Your task to perform on an android device: set the timer Image 0: 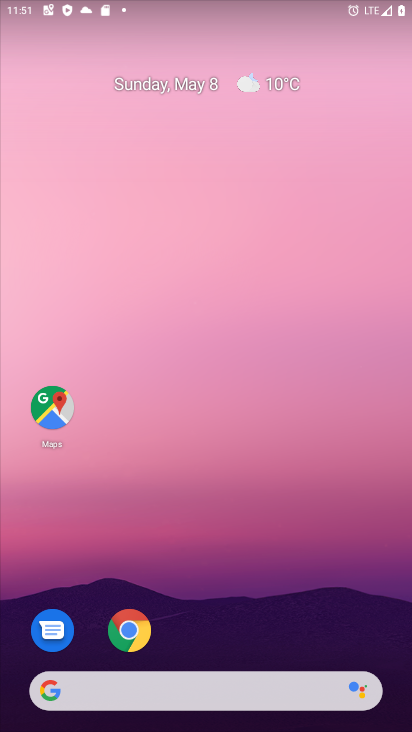
Step 0: drag from (362, 642) to (292, 63)
Your task to perform on an android device: set the timer Image 1: 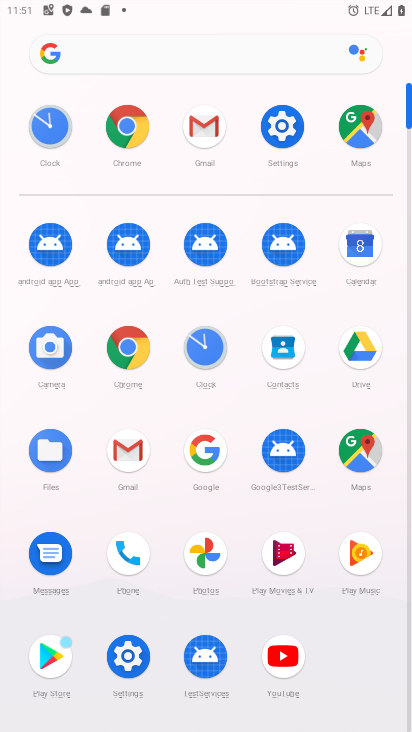
Step 1: click (220, 350)
Your task to perform on an android device: set the timer Image 2: 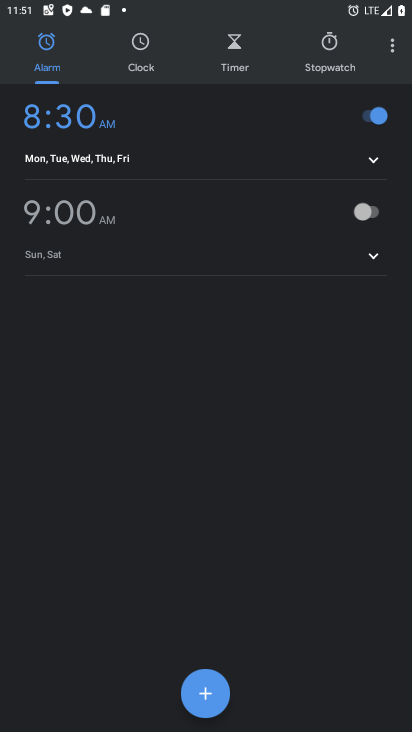
Step 2: click (390, 44)
Your task to perform on an android device: set the timer Image 3: 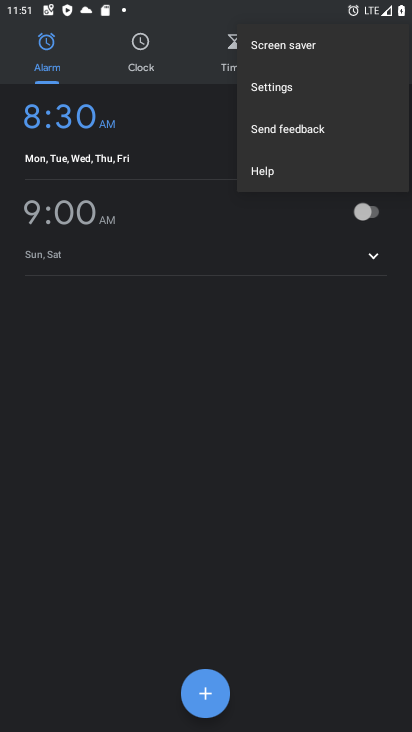
Step 3: click (319, 80)
Your task to perform on an android device: set the timer Image 4: 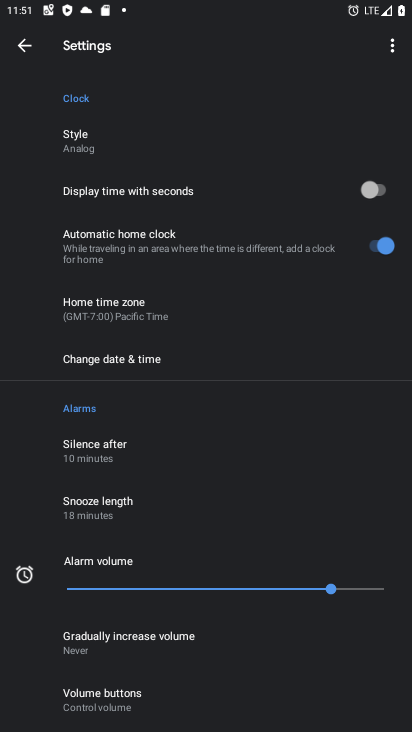
Step 4: drag from (145, 509) to (204, 205)
Your task to perform on an android device: set the timer Image 5: 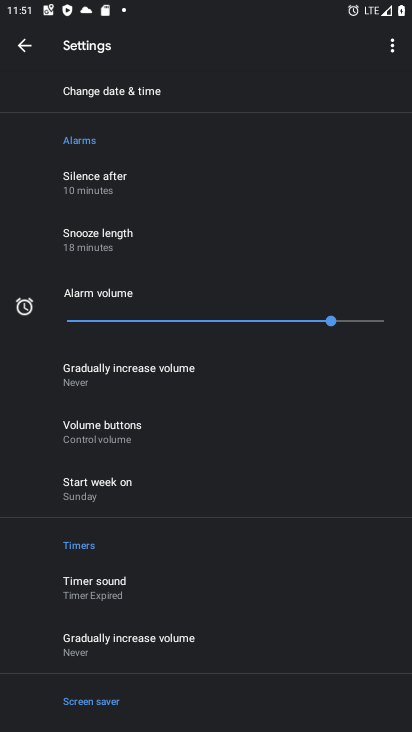
Step 5: drag from (193, 196) to (144, 626)
Your task to perform on an android device: set the timer Image 6: 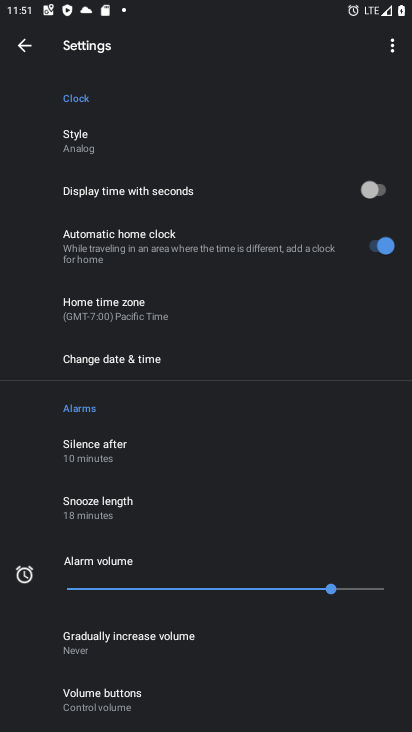
Step 6: click (138, 311)
Your task to perform on an android device: set the timer Image 7: 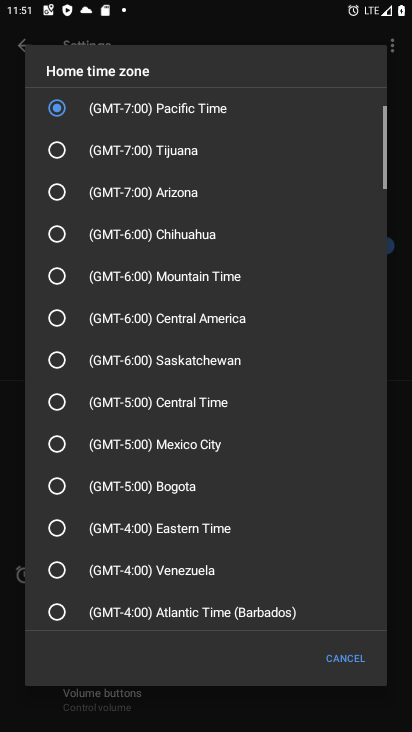
Step 7: click (146, 271)
Your task to perform on an android device: set the timer Image 8: 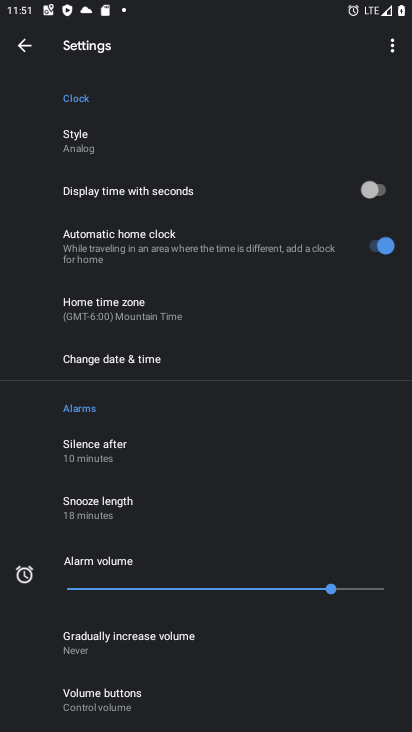
Step 8: task complete